Your task to perform on an android device: turn off data saver in the chrome app Image 0: 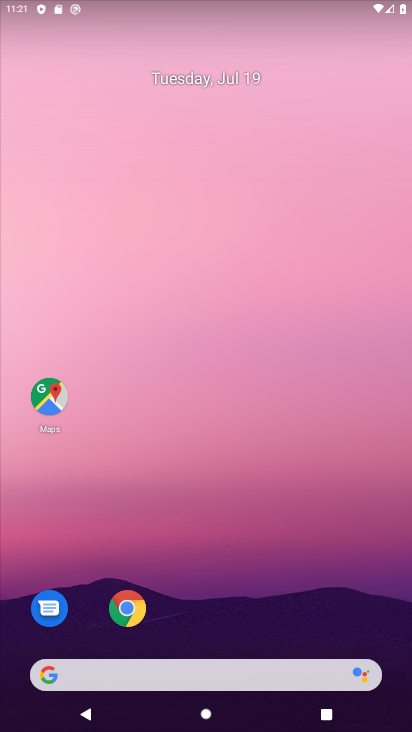
Step 0: click (124, 608)
Your task to perform on an android device: turn off data saver in the chrome app Image 1: 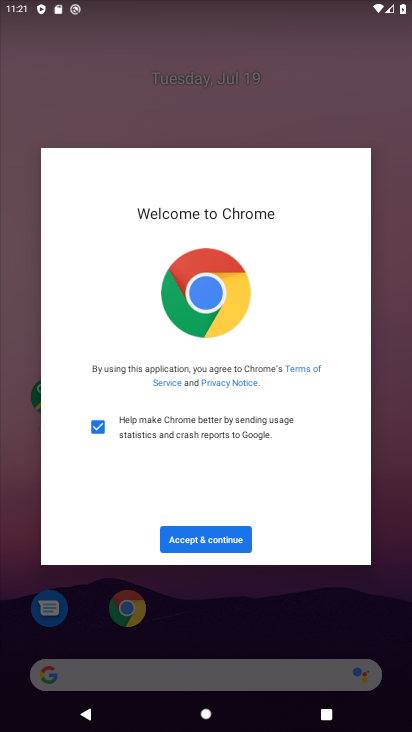
Step 1: click (227, 542)
Your task to perform on an android device: turn off data saver in the chrome app Image 2: 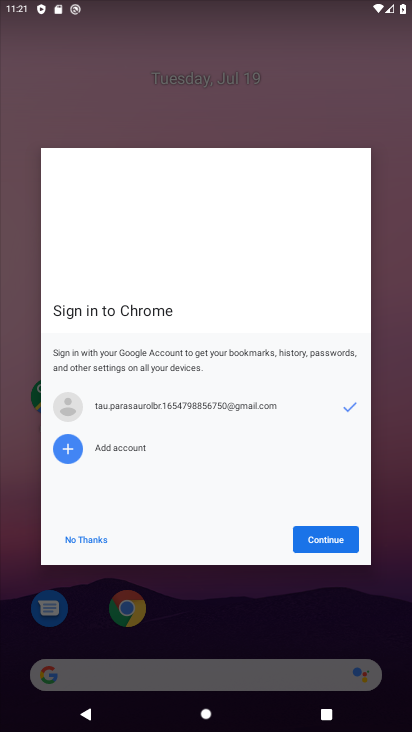
Step 2: click (334, 535)
Your task to perform on an android device: turn off data saver in the chrome app Image 3: 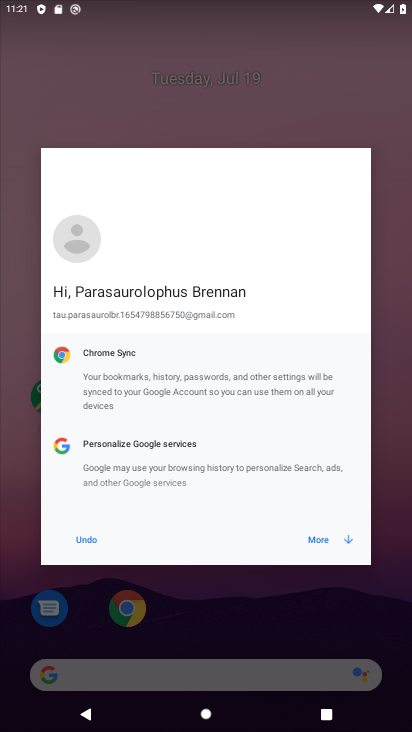
Step 3: click (333, 534)
Your task to perform on an android device: turn off data saver in the chrome app Image 4: 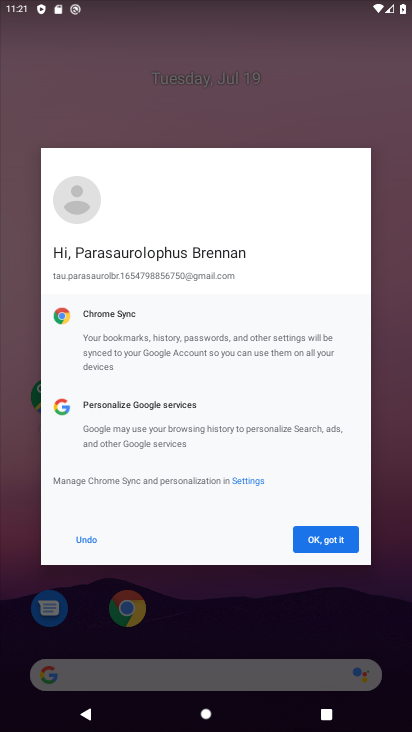
Step 4: click (330, 538)
Your task to perform on an android device: turn off data saver in the chrome app Image 5: 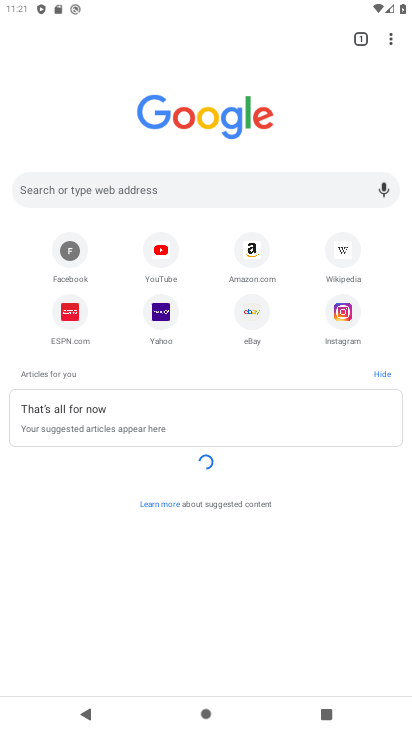
Step 5: click (395, 41)
Your task to perform on an android device: turn off data saver in the chrome app Image 6: 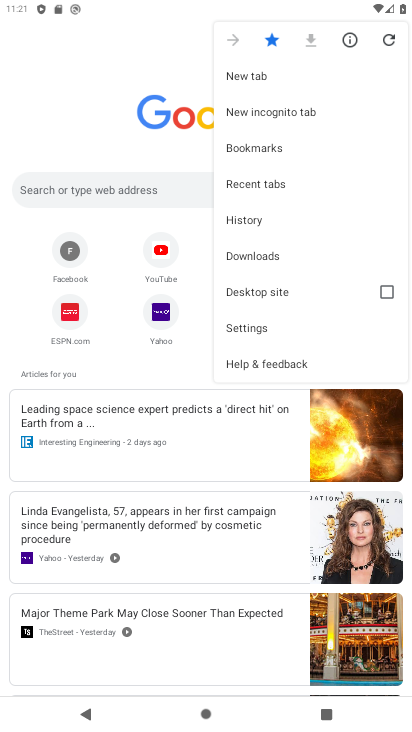
Step 6: click (240, 326)
Your task to perform on an android device: turn off data saver in the chrome app Image 7: 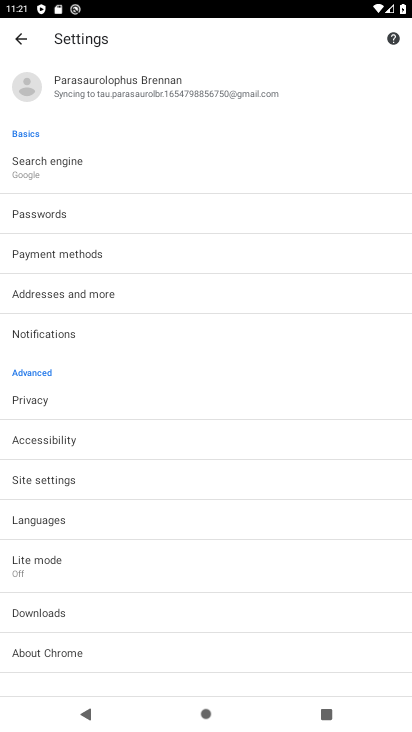
Step 7: click (44, 563)
Your task to perform on an android device: turn off data saver in the chrome app Image 8: 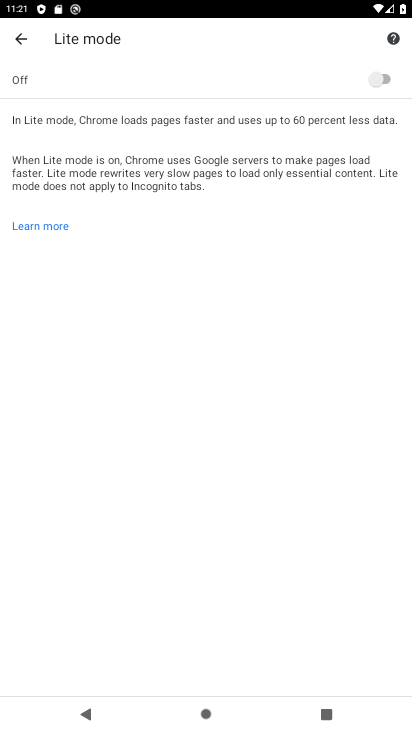
Step 8: task complete